Your task to perform on an android device: Is it going to rain this weekend? Image 0: 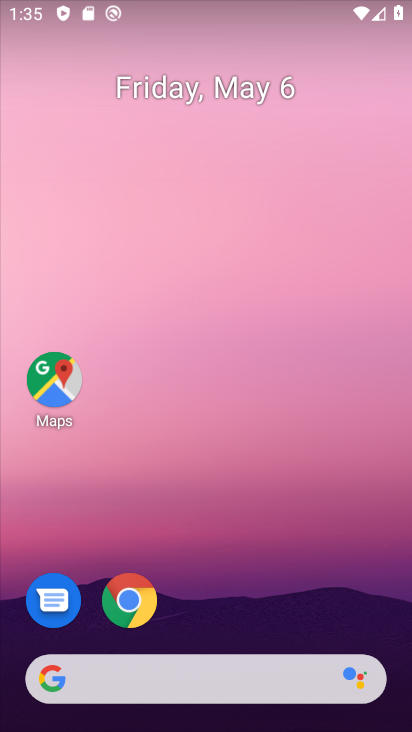
Step 0: drag from (272, 619) to (352, 104)
Your task to perform on an android device: Is it going to rain this weekend? Image 1: 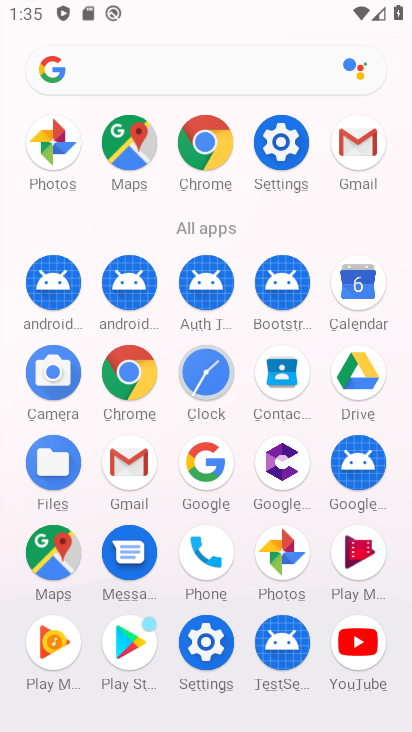
Step 1: click (126, 66)
Your task to perform on an android device: Is it going to rain this weekend? Image 2: 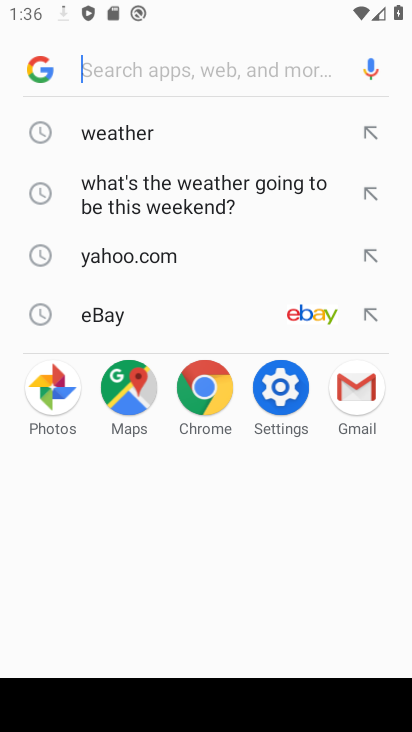
Step 2: type "is it going to rain this weekend "
Your task to perform on an android device: Is it going to rain this weekend? Image 3: 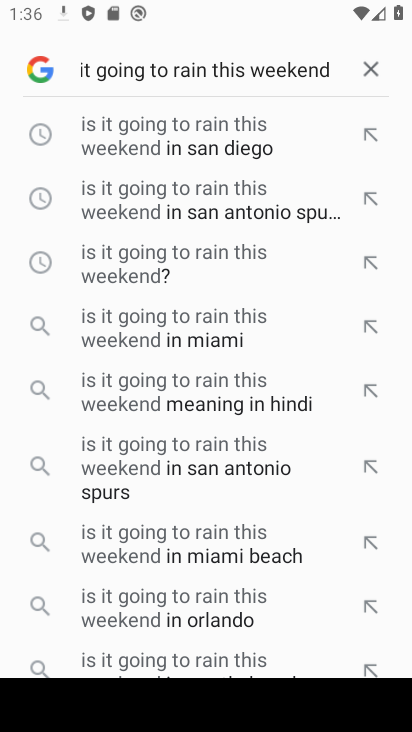
Step 3: click (166, 275)
Your task to perform on an android device: Is it going to rain this weekend? Image 4: 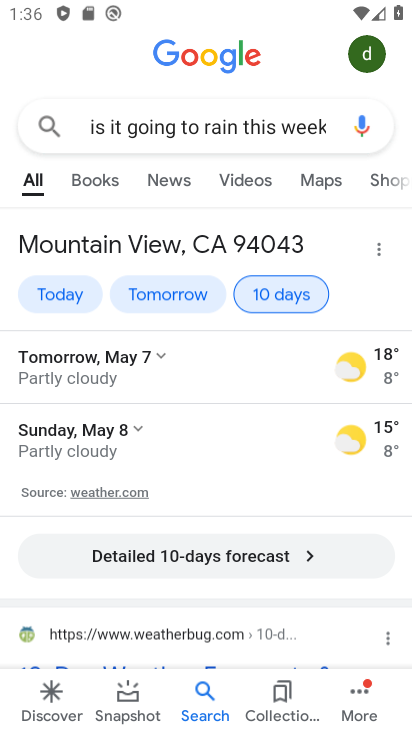
Step 4: task complete